Your task to perform on an android device: Open privacy settings Image 0: 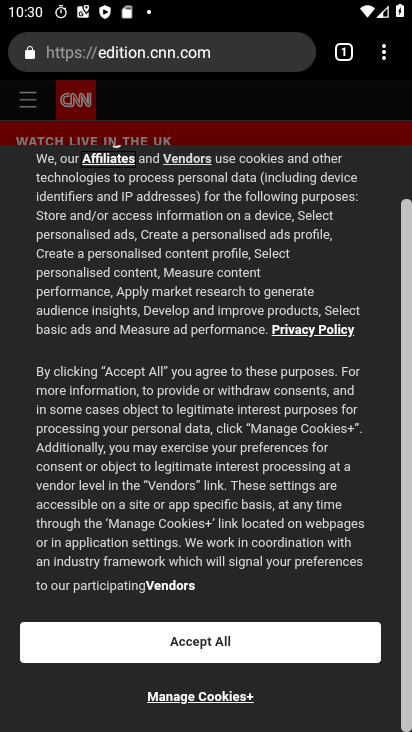
Step 0: press home button
Your task to perform on an android device: Open privacy settings Image 1: 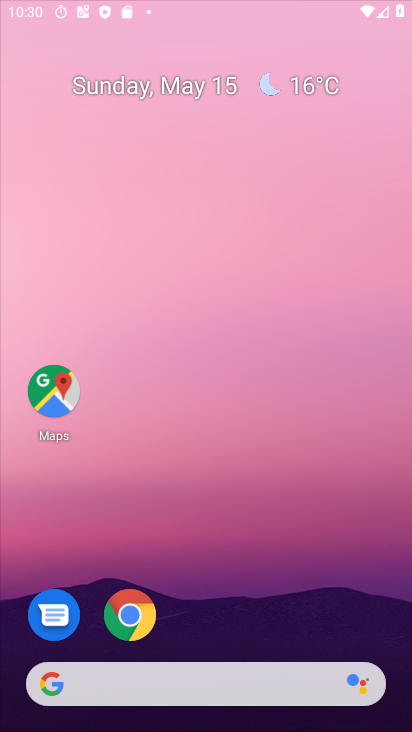
Step 1: drag from (226, 609) to (251, 129)
Your task to perform on an android device: Open privacy settings Image 2: 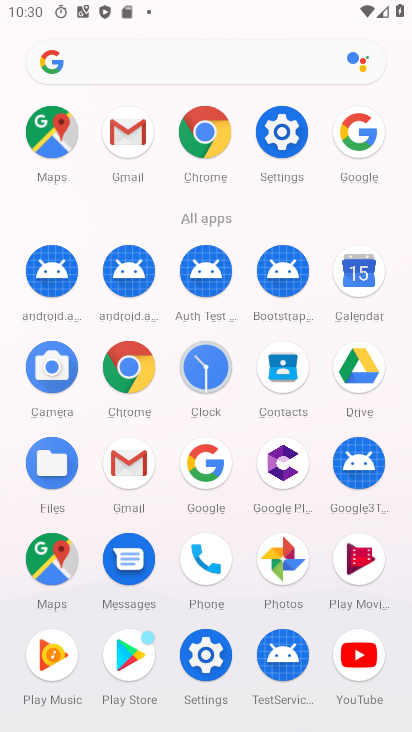
Step 2: click (285, 129)
Your task to perform on an android device: Open privacy settings Image 3: 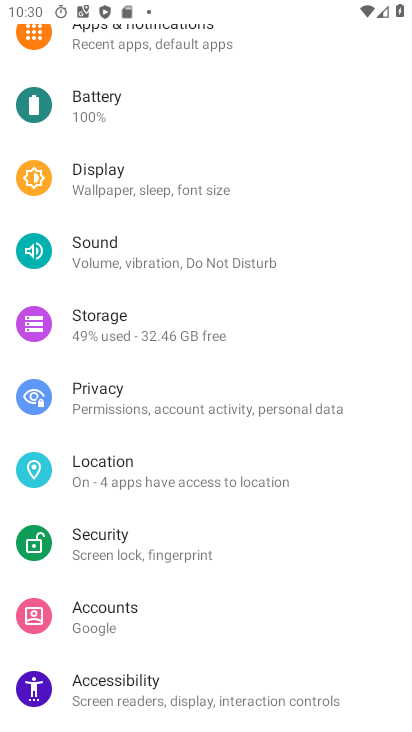
Step 3: click (158, 399)
Your task to perform on an android device: Open privacy settings Image 4: 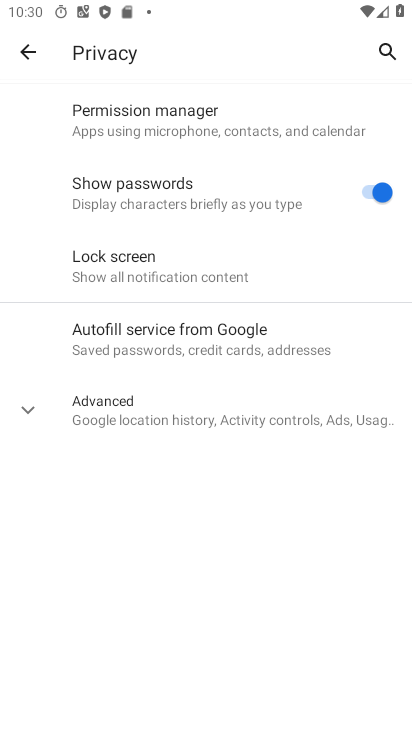
Step 4: task complete